Your task to perform on an android device: move a message to another label in the gmail app Image 0: 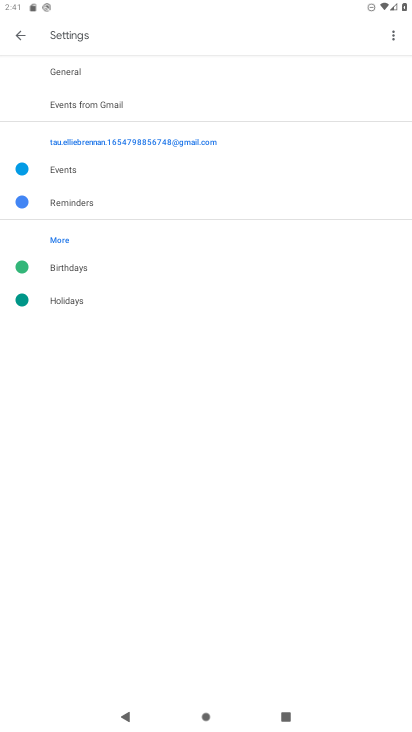
Step 0: press home button
Your task to perform on an android device: move a message to another label in the gmail app Image 1: 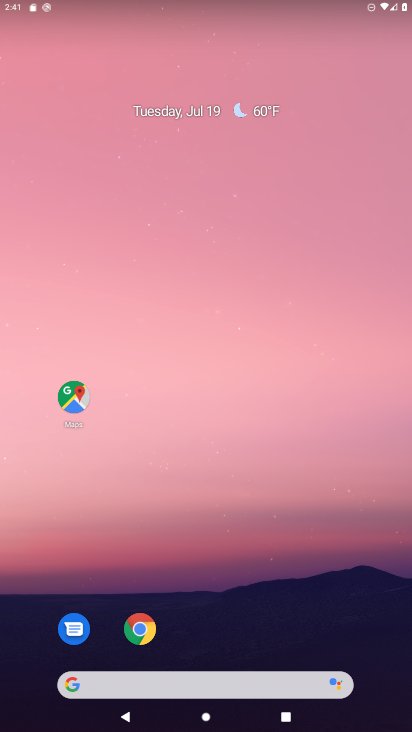
Step 1: drag from (238, 583) to (288, 297)
Your task to perform on an android device: move a message to another label in the gmail app Image 2: 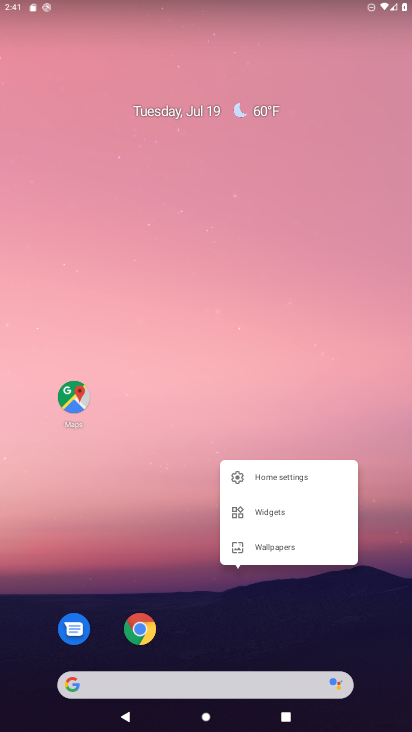
Step 2: click (230, 392)
Your task to perform on an android device: move a message to another label in the gmail app Image 3: 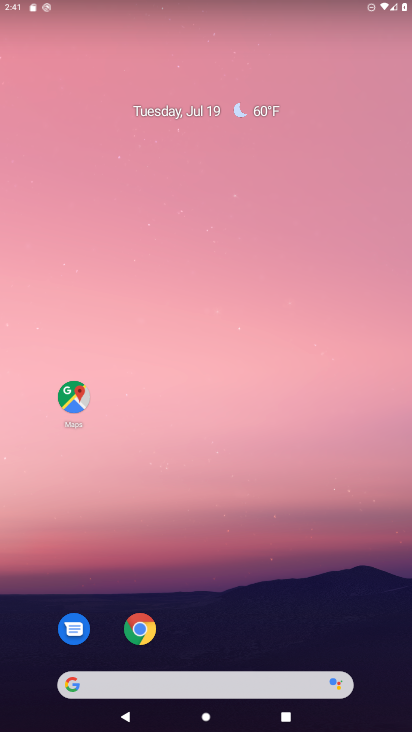
Step 3: drag from (205, 512) to (196, 259)
Your task to perform on an android device: move a message to another label in the gmail app Image 4: 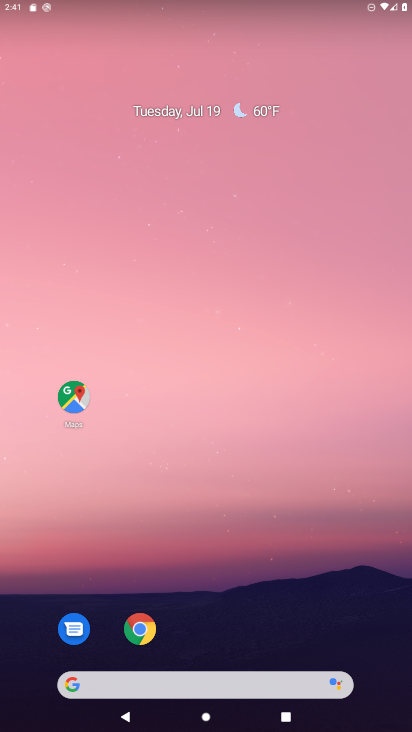
Step 4: drag from (224, 532) to (248, 203)
Your task to perform on an android device: move a message to another label in the gmail app Image 5: 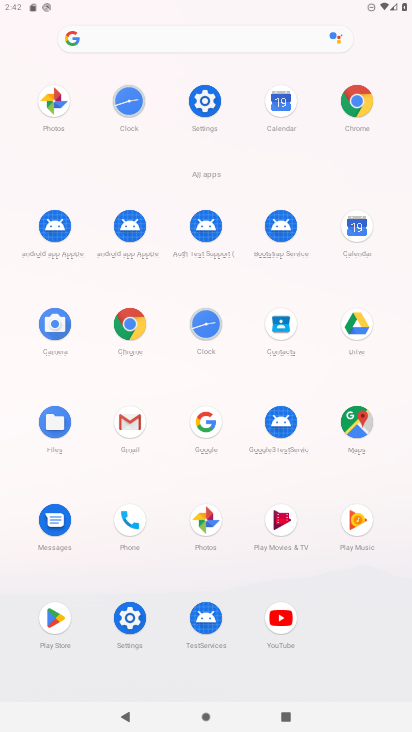
Step 5: click (121, 426)
Your task to perform on an android device: move a message to another label in the gmail app Image 6: 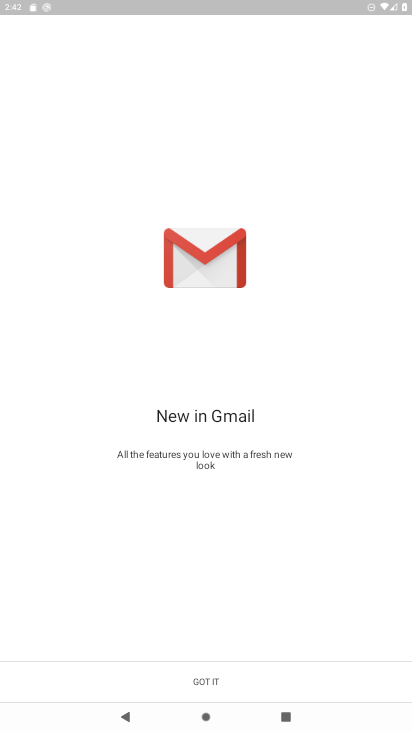
Step 6: click (208, 672)
Your task to perform on an android device: move a message to another label in the gmail app Image 7: 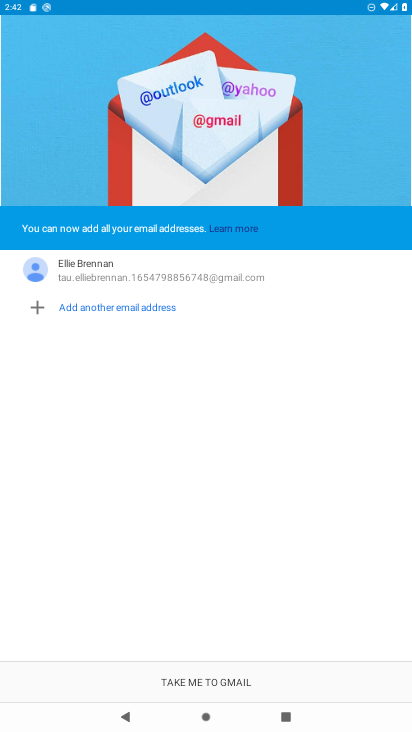
Step 7: click (209, 681)
Your task to perform on an android device: move a message to another label in the gmail app Image 8: 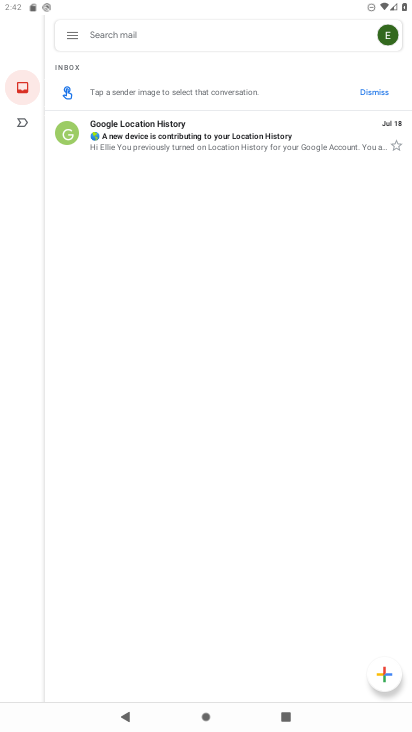
Step 8: task complete